Your task to perform on an android device: Open ESPN.com Image 0: 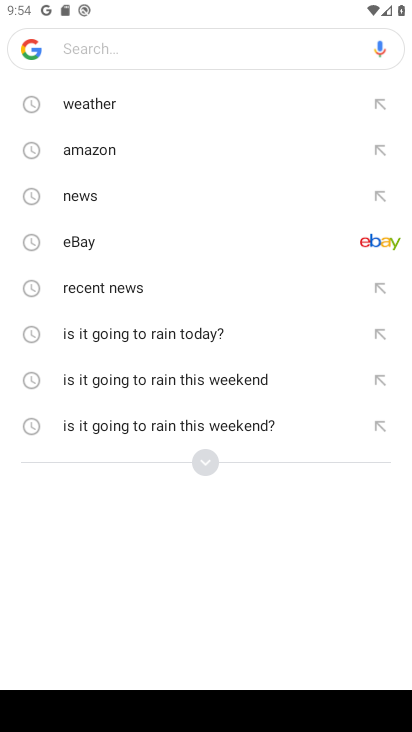
Step 0: type "espn.com"
Your task to perform on an android device: Open ESPN.com Image 1: 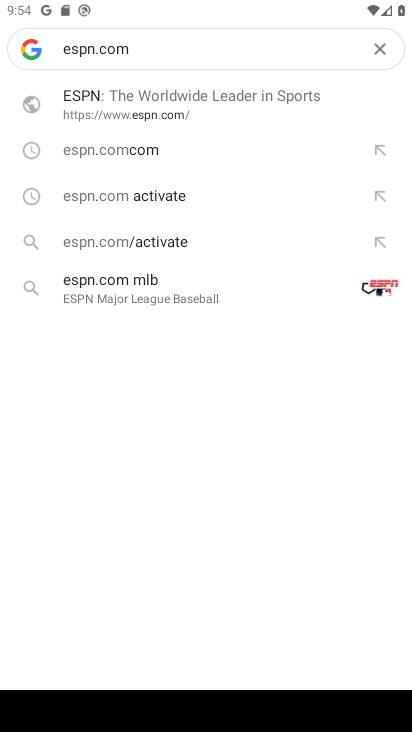
Step 1: click (73, 107)
Your task to perform on an android device: Open ESPN.com Image 2: 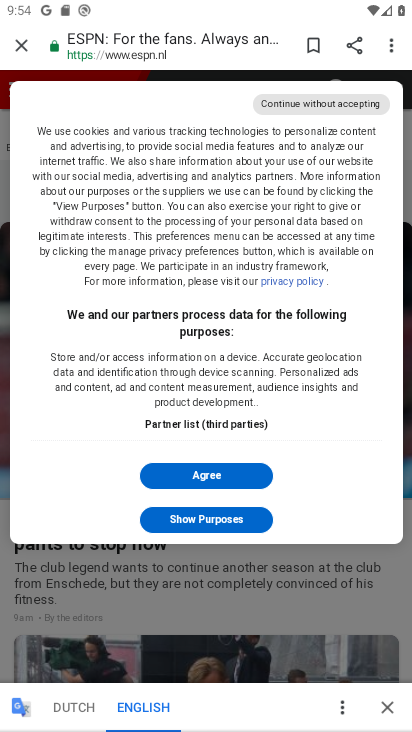
Step 2: task complete